Your task to perform on an android device: Turn off the flashlight Image 0: 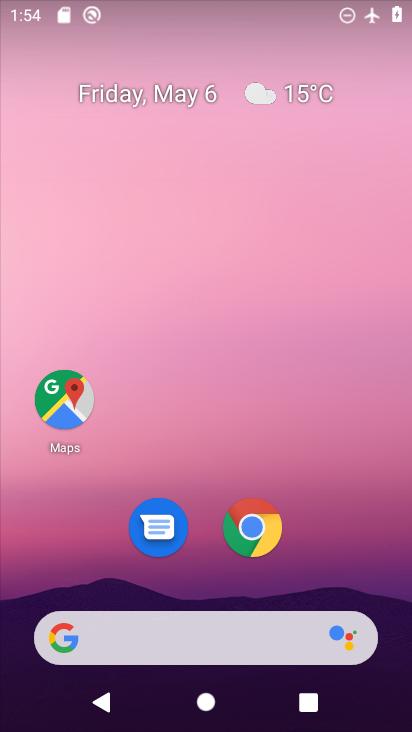
Step 0: drag from (323, 552) to (65, 59)
Your task to perform on an android device: Turn off the flashlight Image 1: 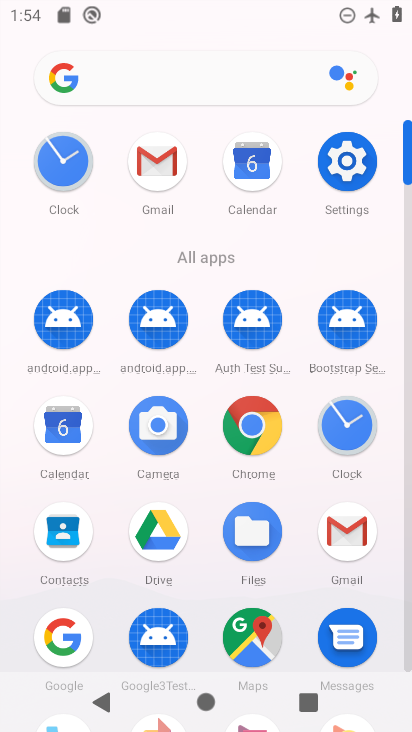
Step 1: click (357, 166)
Your task to perform on an android device: Turn off the flashlight Image 2: 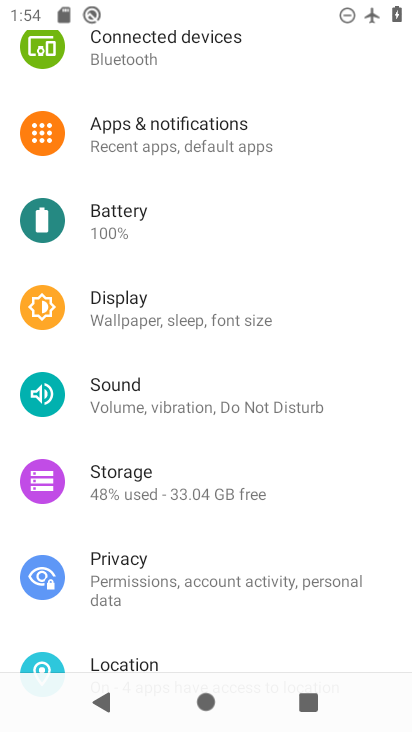
Step 2: drag from (301, 125) to (276, 483)
Your task to perform on an android device: Turn off the flashlight Image 3: 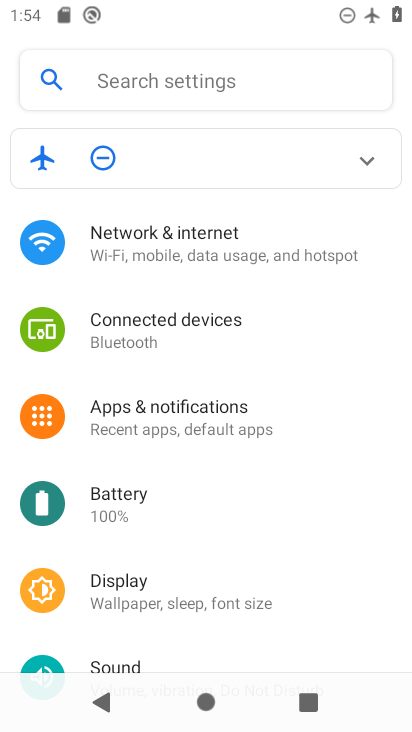
Step 3: click (106, 73)
Your task to perform on an android device: Turn off the flashlight Image 4: 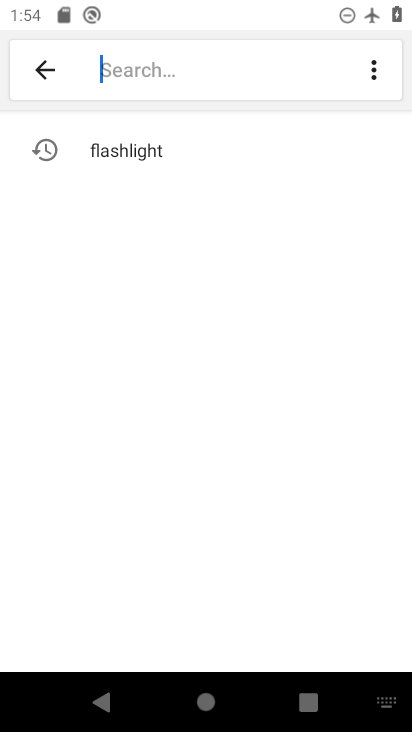
Step 4: type "flashlight"
Your task to perform on an android device: Turn off the flashlight Image 5: 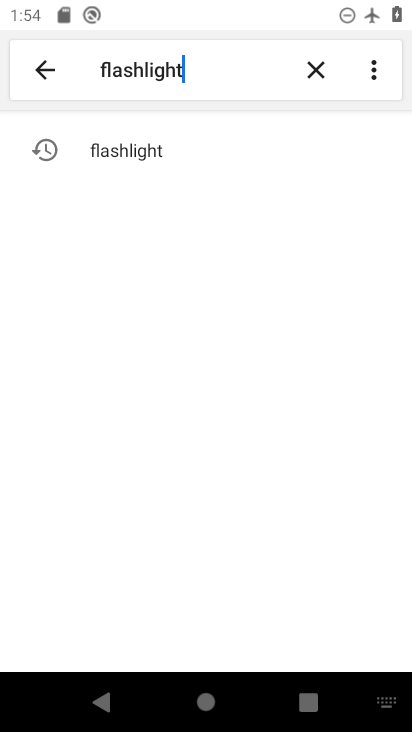
Step 5: click (127, 158)
Your task to perform on an android device: Turn off the flashlight Image 6: 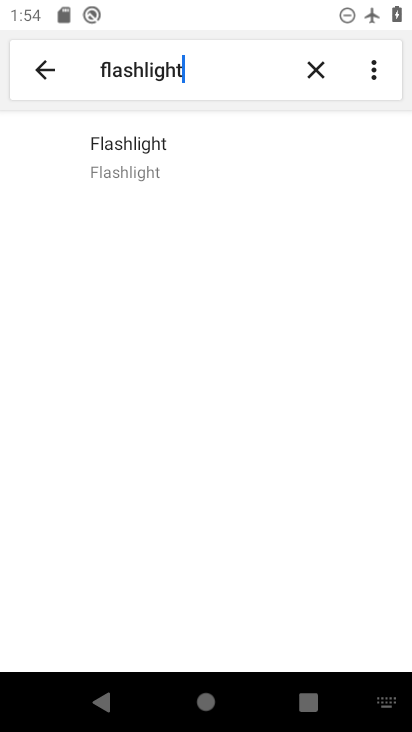
Step 6: click (127, 158)
Your task to perform on an android device: Turn off the flashlight Image 7: 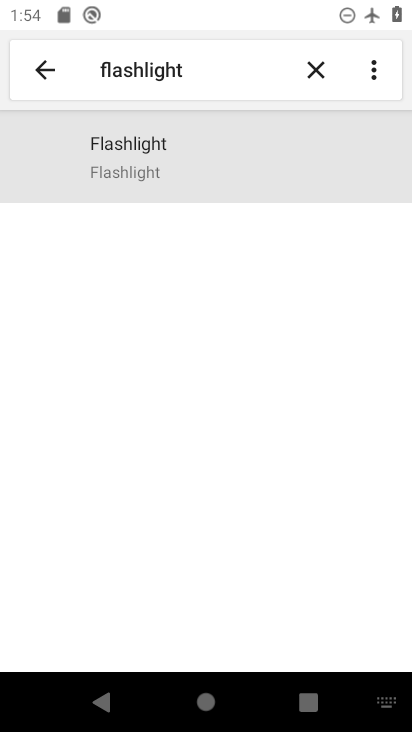
Step 7: click (127, 158)
Your task to perform on an android device: Turn off the flashlight Image 8: 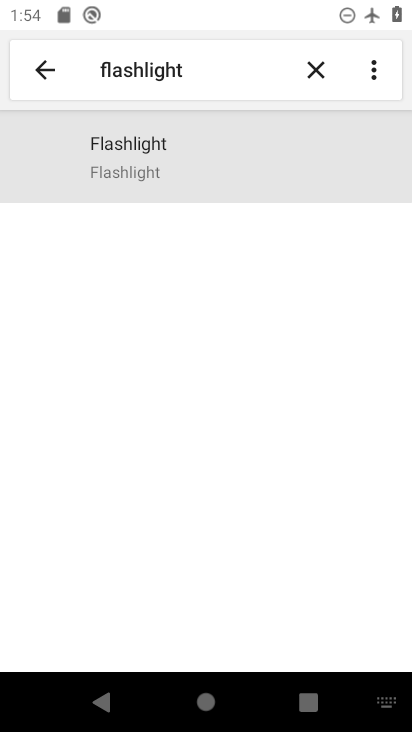
Step 8: click (127, 158)
Your task to perform on an android device: Turn off the flashlight Image 9: 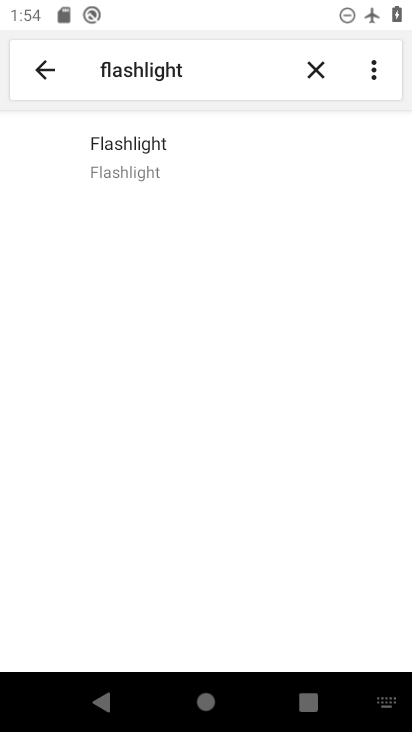
Step 9: click (127, 158)
Your task to perform on an android device: Turn off the flashlight Image 10: 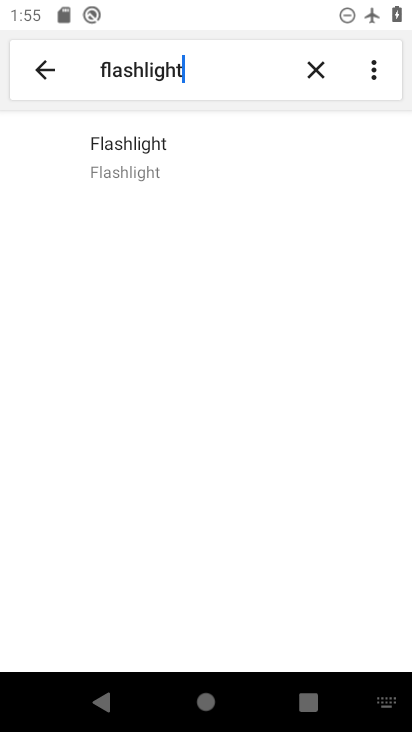
Step 10: task complete